Your task to perform on an android device: Open Chrome and go to settings Image 0: 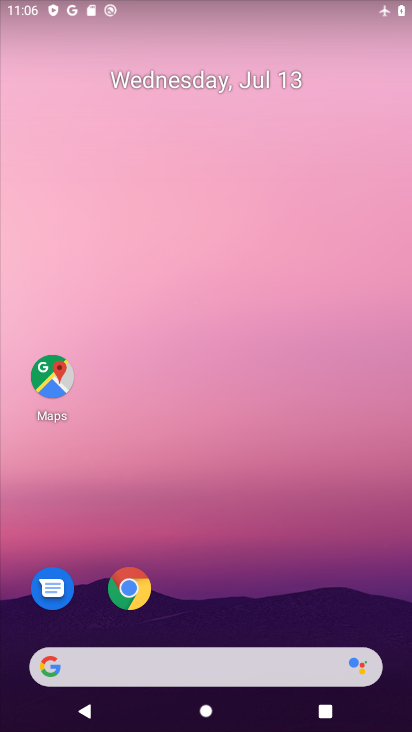
Step 0: drag from (224, 606) to (261, 105)
Your task to perform on an android device: Open Chrome and go to settings Image 1: 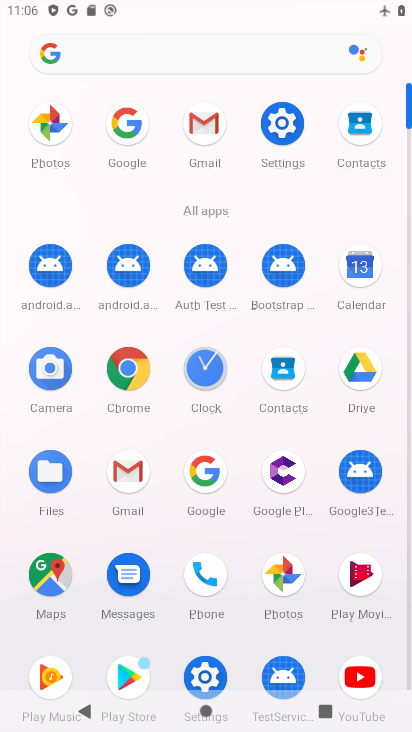
Step 1: click (131, 371)
Your task to perform on an android device: Open Chrome and go to settings Image 2: 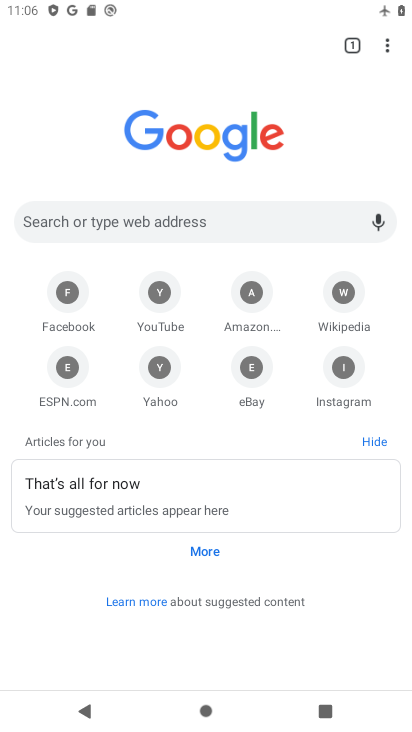
Step 2: click (381, 45)
Your task to perform on an android device: Open Chrome and go to settings Image 3: 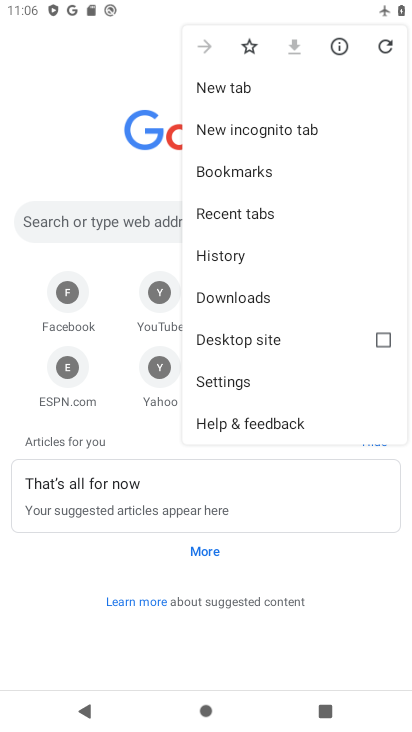
Step 3: click (249, 382)
Your task to perform on an android device: Open Chrome and go to settings Image 4: 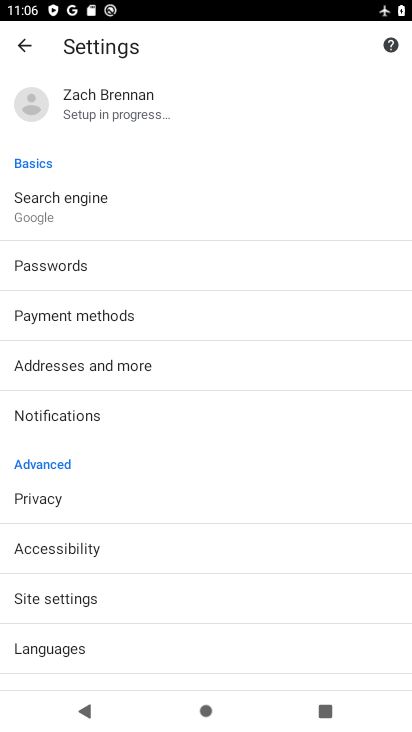
Step 4: task complete